Your task to perform on an android device: toggle data saver in the chrome app Image 0: 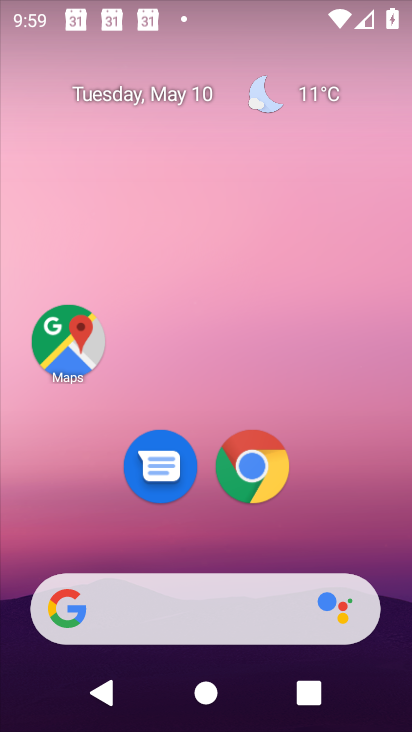
Step 0: click (257, 457)
Your task to perform on an android device: toggle data saver in the chrome app Image 1: 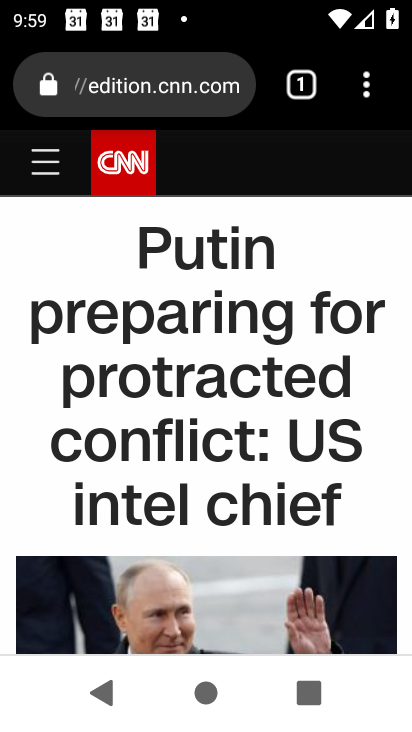
Step 1: drag from (372, 83) to (173, 525)
Your task to perform on an android device: toggle data saver in the chrome app Image 2: 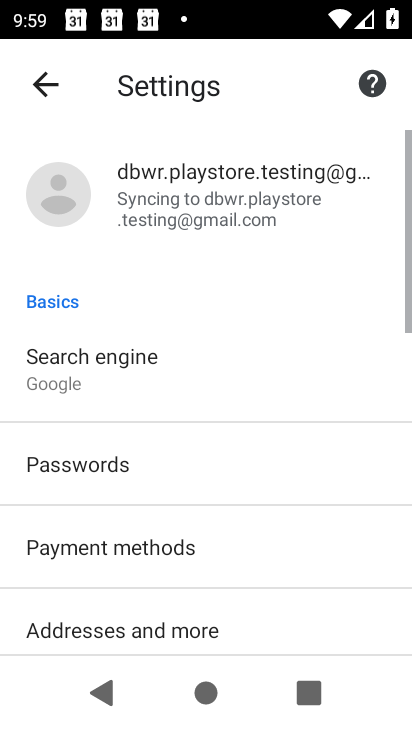
Step 2: drag from (136, 456) to (222, 11)
Your task to perform on an android device: toggle data saver in the chrome app Image 3: 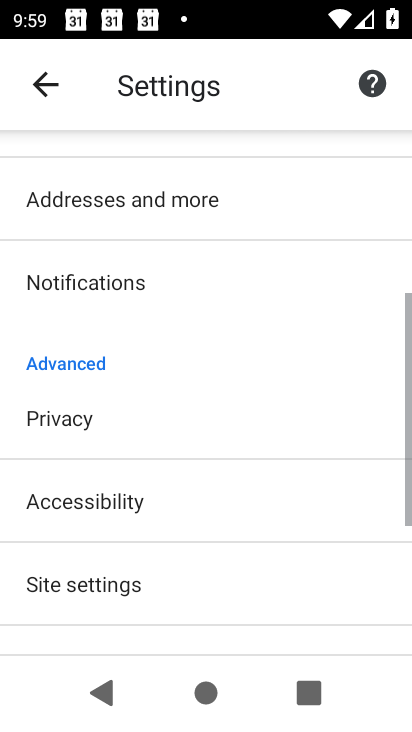
Step 3: drag from (217, 463) to (295, 25)
Your task to perform on an android device: toggle data saver in the chrome app Image 4: 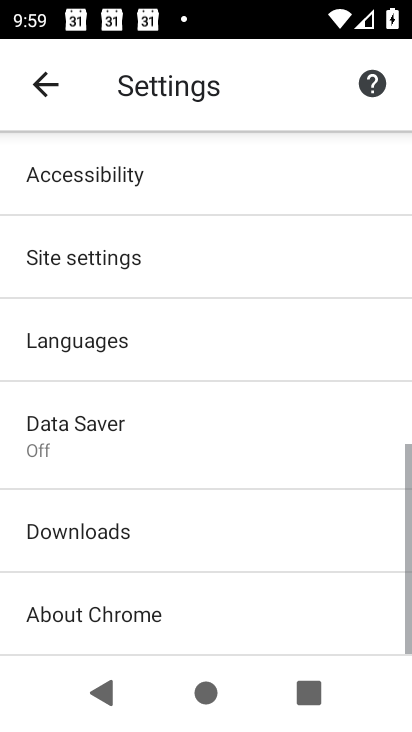
Step 4: drag from (187, 423) to (219, 284)
Your task to perform on an android device: toggle data saver in the chrome app Image 5: 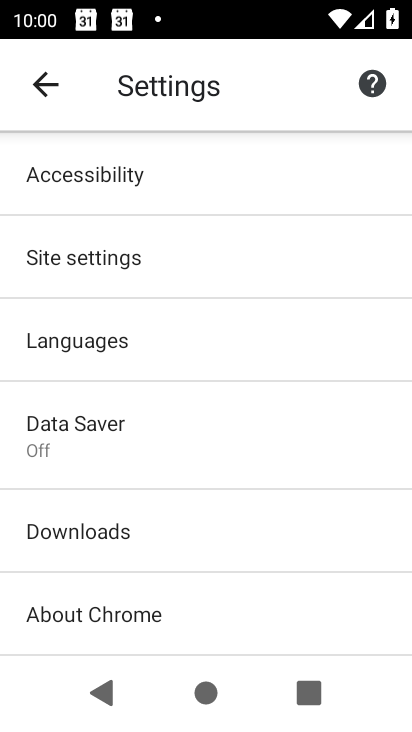
Step 5: click (117, 440)
Your task to perform on an android device: toggle data saver in the chrome app Image 6: 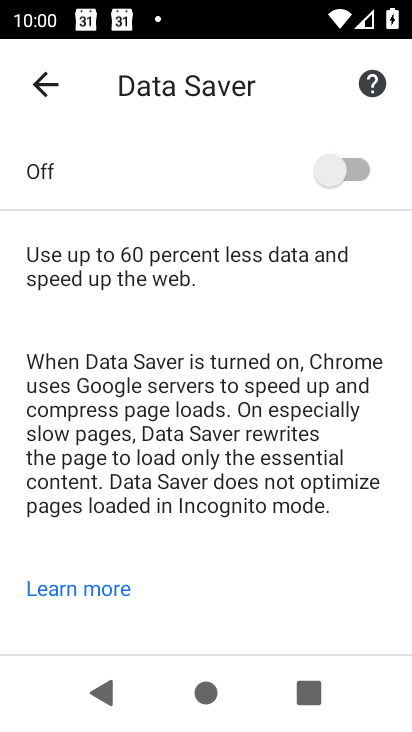
Step 6: click (352, 183)
Your task to perform on an android device: toggle data saver in the chrome app Image 7: 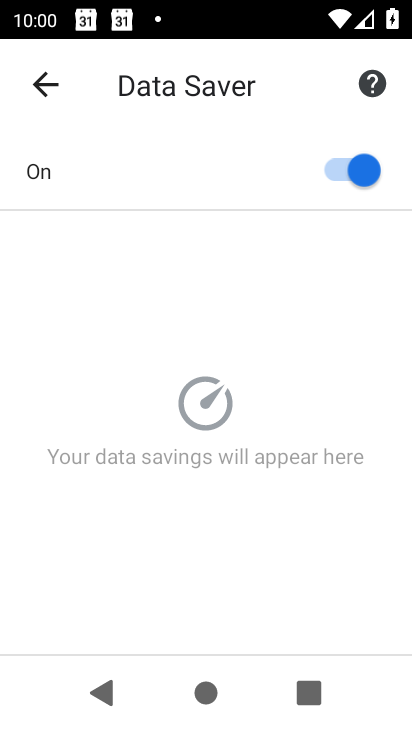
Step 7: task complete